Your task to perform on an android device: Go to Android settings Image 0: 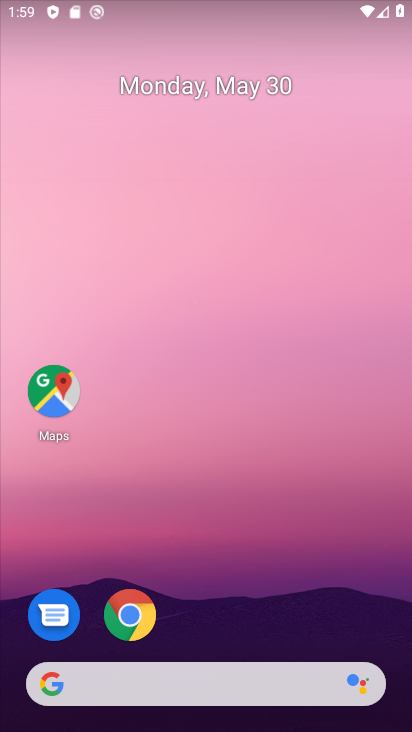
Step 0: drag from (239, 588) to (322, 0)
Your task to perform on an android device: Go to Android settings Image 1: 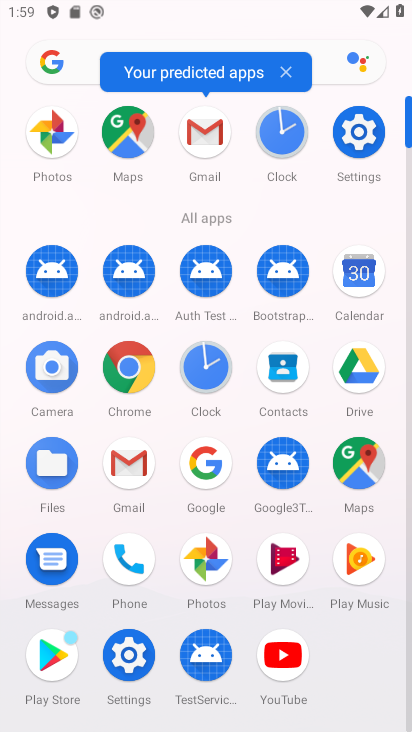
Step 1: click (133, 645)
Your task to perform on an android device: Go to Android settings Image 2: 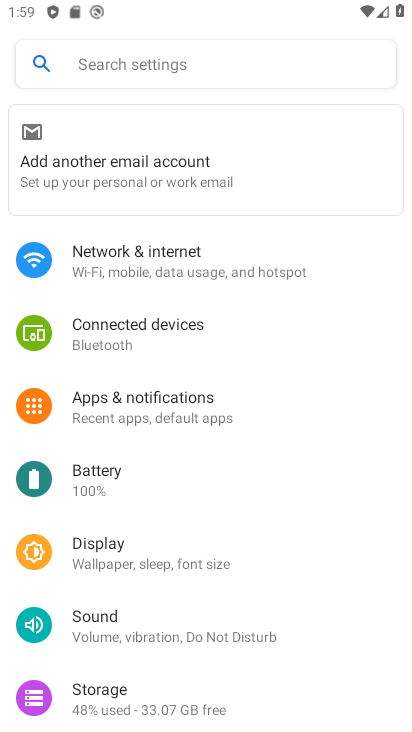
Step 2: drag from (219, 523) to (240, 51)
Your task to perform on an android device: Go to Android settings Image 3: 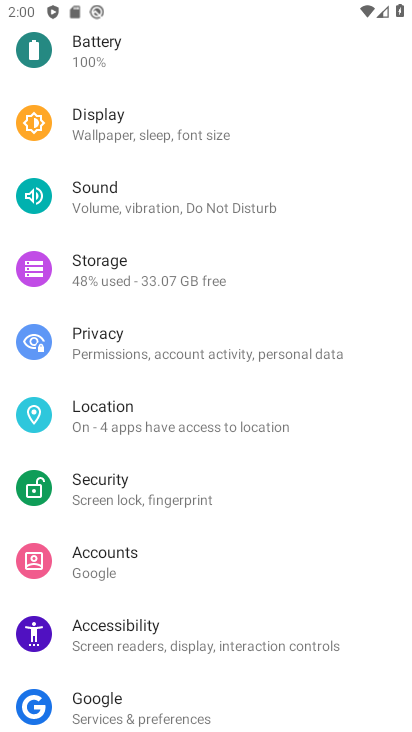
Step 3: drag from (227, 547) to (270, 334)
Your task to perform on an android device: Go to Android settings Image 4: 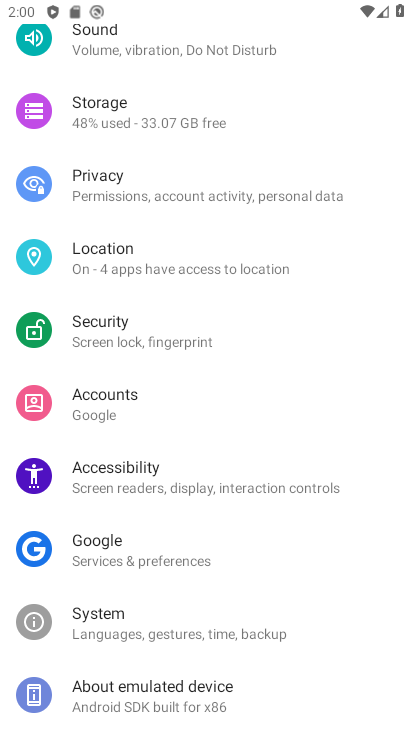
Step 4: click (187, 687)
Your task to perform on an android device: Go to Android settings Image 5: 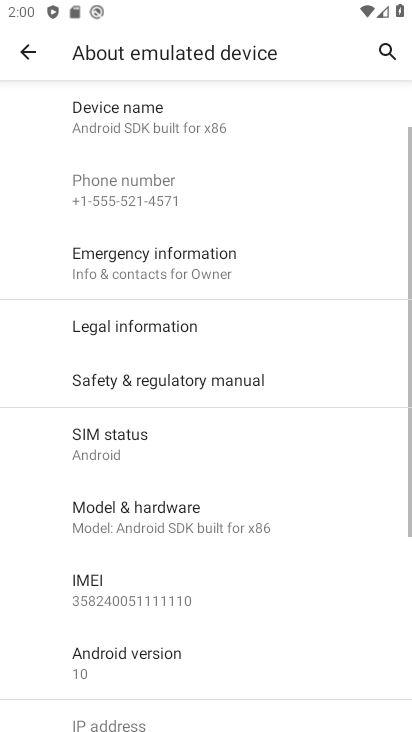
Step 5: task complete